Your task to perform on an android device: Toggle the flashlight Image 0: 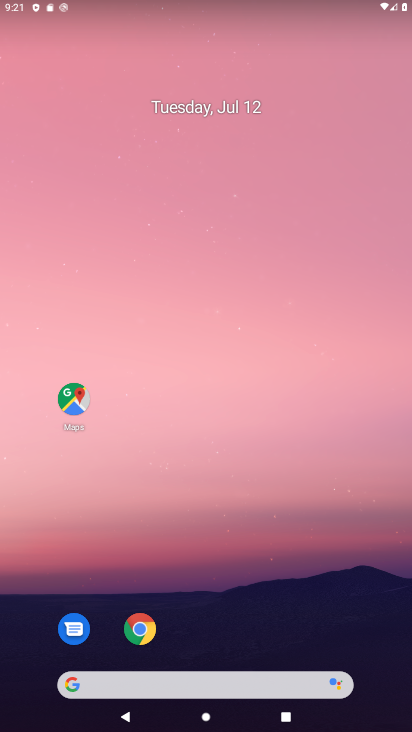
Step 0: drag from (313, 32) to (352, 625)
Your task to perform on an android device: Toggle the flashlight Image 1: 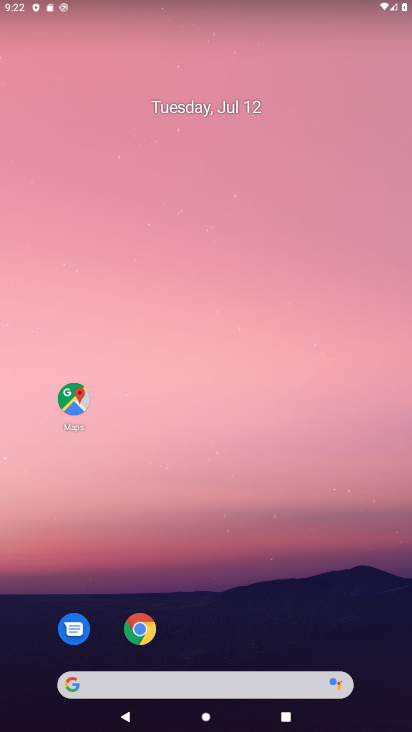
Step 1: task complete